Your task to perform on an android device: turn off javascript in the chrome app Image 0: 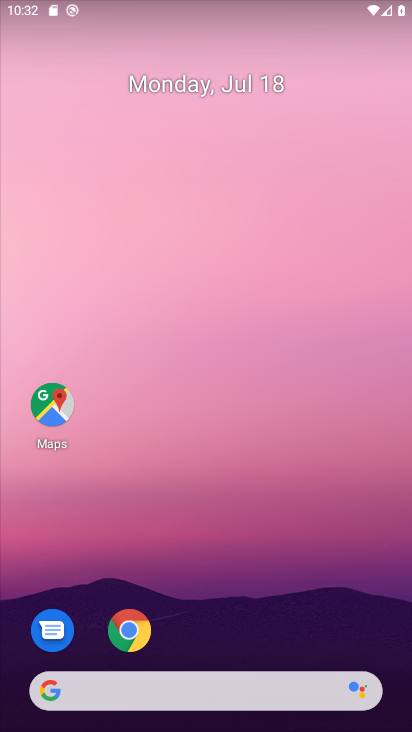
Step 0: click (131, 633)
Your task to perform on an android device: turn off javascript in the chrome app Image 1: 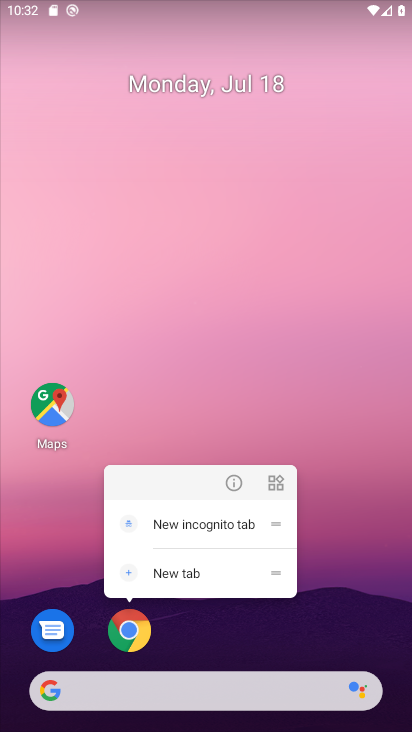
Step 1: click (131, 632)
Your task to perform on an android device: turn off javascript in the chrome app Image 2: 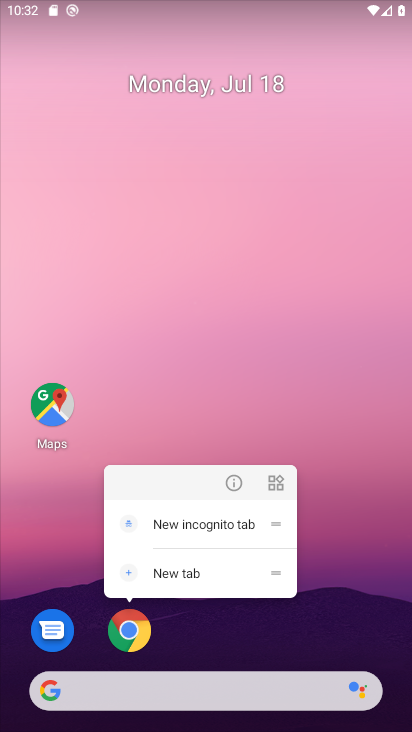
Step 2: click (126, 628)
Your task to perform on an android device: turn off javascript in the chrome app Image 3: 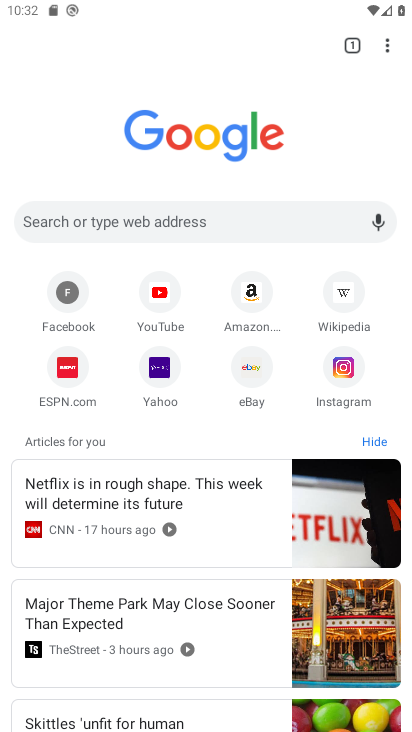
Step 3: click (385, 44)
Your task to perform on an android device: turn off javascript in the chrome app Image 4: 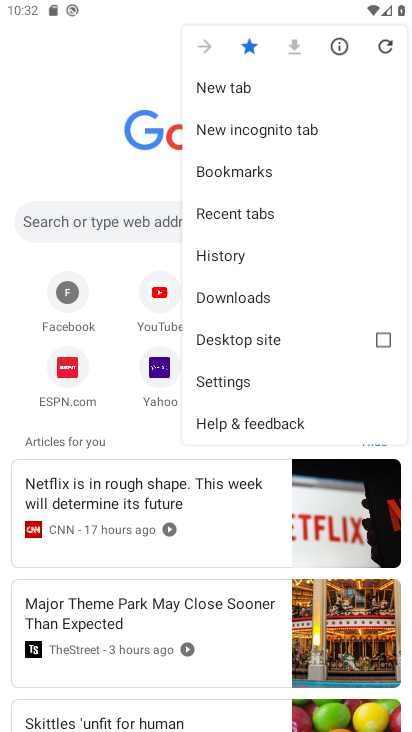
Step 4: click (237, 378)
Your task to perform on an android device: turn off javascript in the chrome app Image 5: 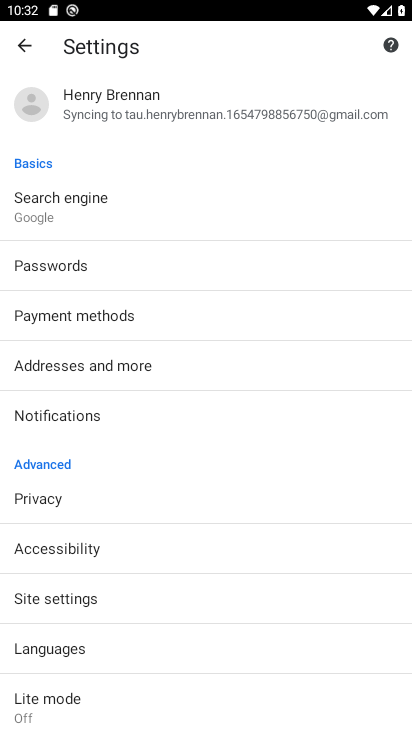
Step 5: click (82, 597)
Your task to perform on an android device: turn off javascript in the chrome app Image 6: 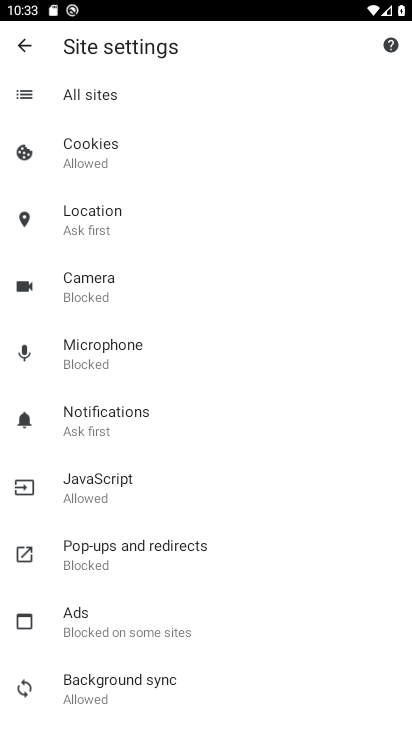
Step 6: click (118, 491)
Your task to perform on an android device: turn off javascript in the chrome app Image 7: 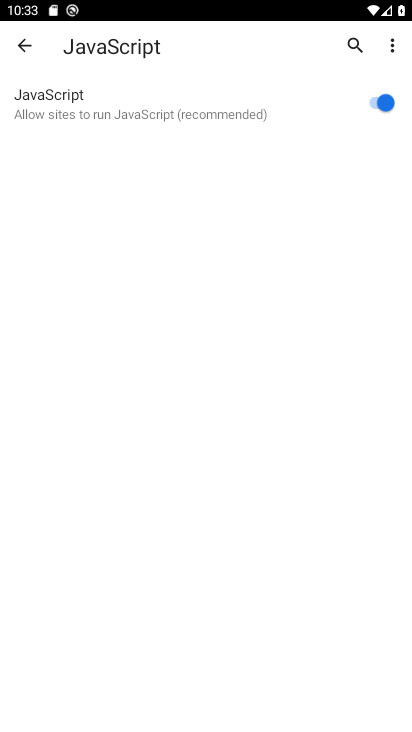
Step 7: click (373, 103)
Your task to perform on an android device: turn off javascript in the chrome app Image 8: 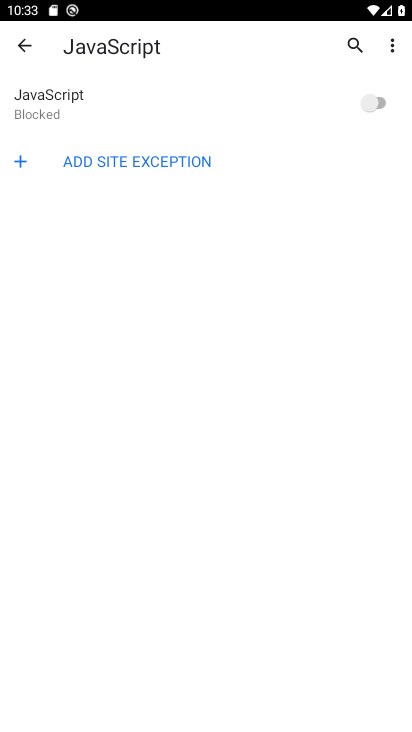
Step 8: task complete